Your task to perform on an android device: Show me recent news Image 0: 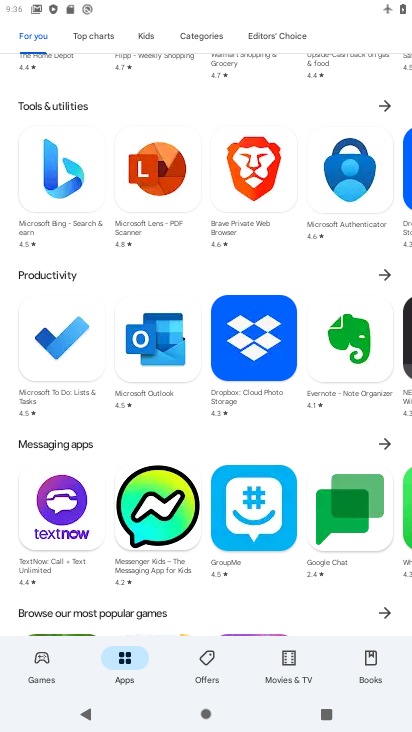
Step 0: press home button
Your task to perform on an android device: Show me recent news Image 1: 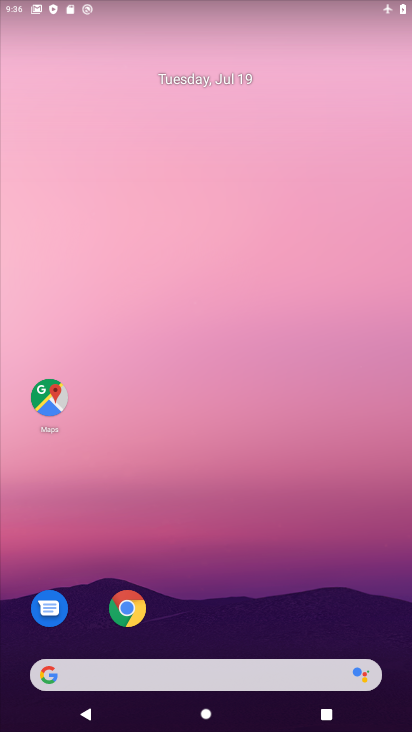
Step 1: drag from (253, 617) to (199, 75)
Your task to perform on an android device: Show me recent news Image 2: 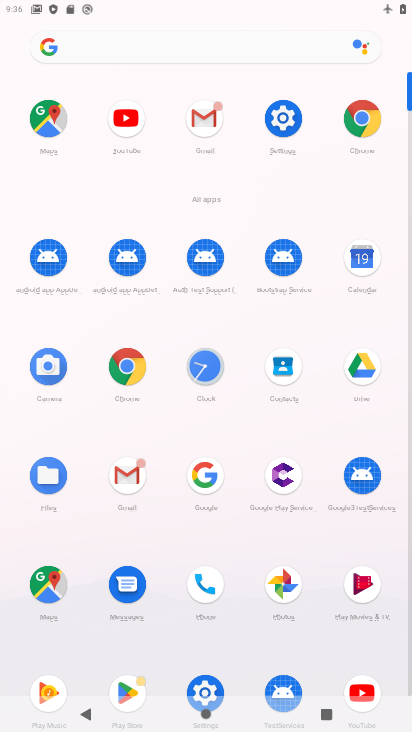
Step 2: click (366, 118)
Your task to perform on an android device: Show me recent news Image 3: 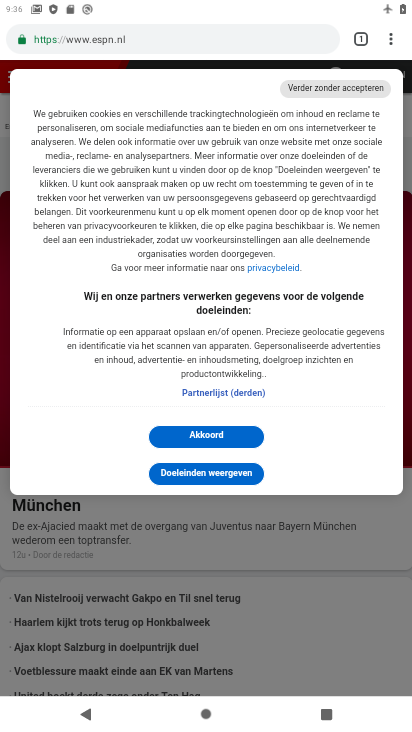
Step 3: click (159, 29)
Your task to perform on an android device: Show me recent news Image 4: 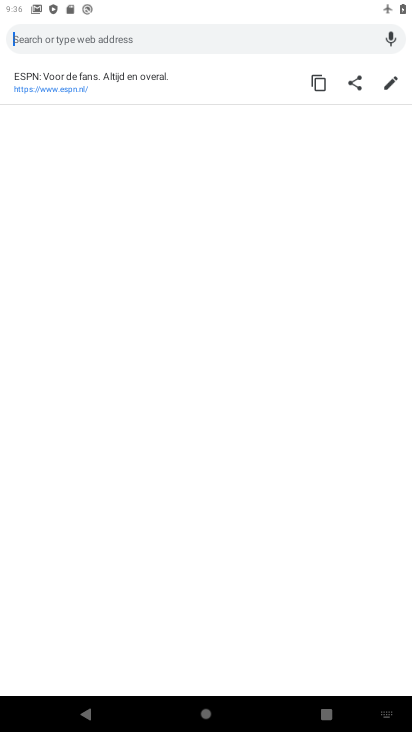
Step 4: type "news"
Your task to perform on an android device: Show me recent news Image 5: 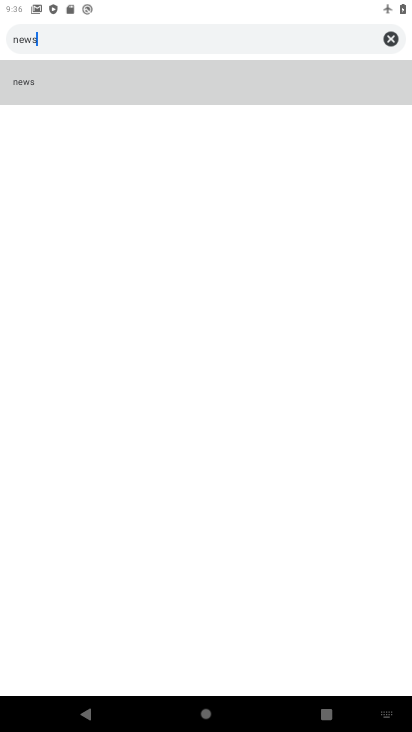
Step 5: click (34, 75)
Your task to perform on an android device: Show me recent news Image 6: 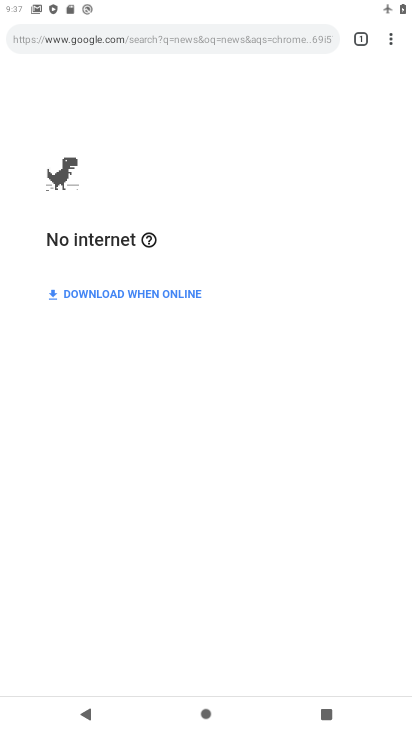
Step 6: task complete